Your task to perform on an android device: change alarm snooze length Image 0: 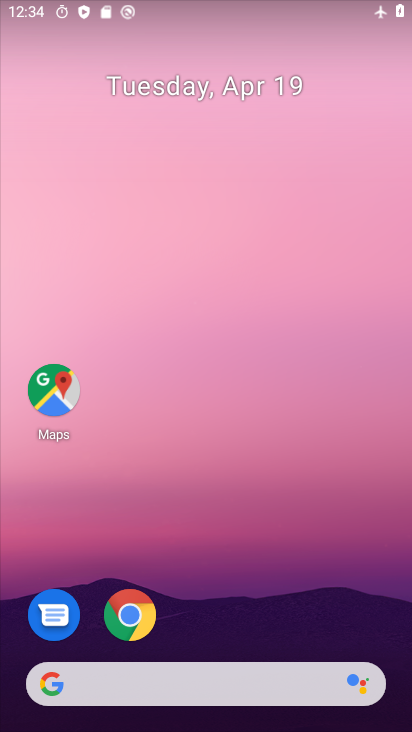
Step 0: drag from (385, 619) to (363, 34)
Your task to perform on an android device: change alarm snooze length Image 1: 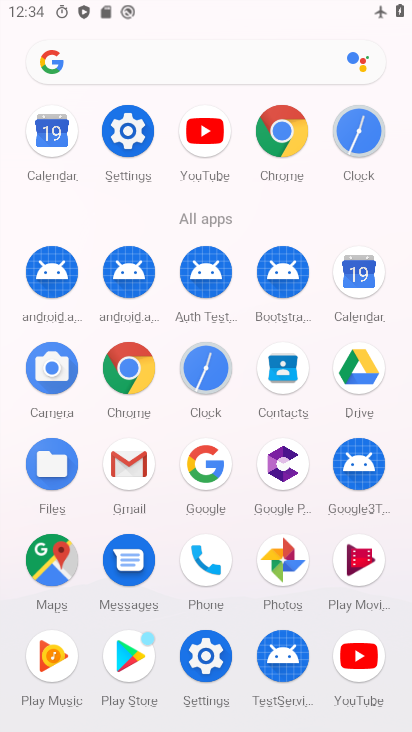
Step 1: click (216, 374)
Your task to perform on an android device: change alarm snooze length Image 2: 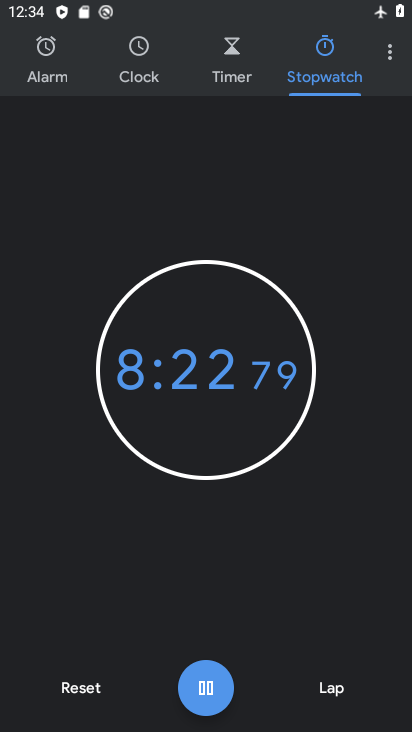
Step 2: click (386, 53)
Your task to perform on an android device: change alarm snooze length Image 3: 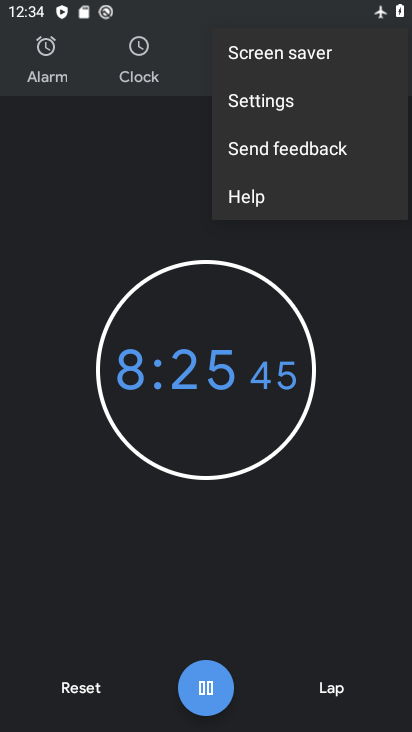
Step 3: click (284, 98)
Your task to perform on an android device: change alarm snooze length Image 4: 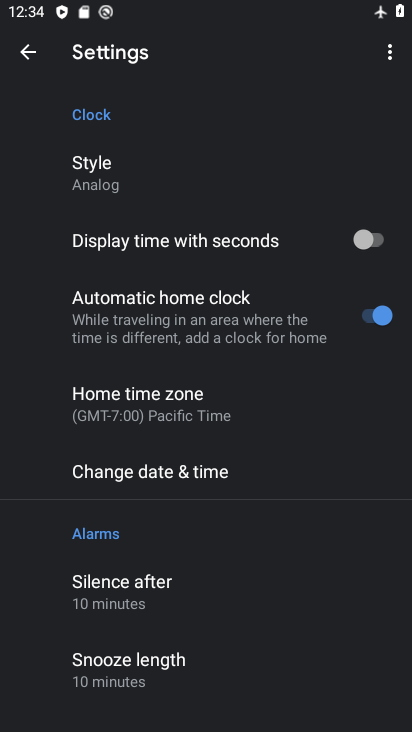
Step 4: drag from (297, 552) to (313, 410)
Your task to perform on an android device: change alarm snooze length Image 5: 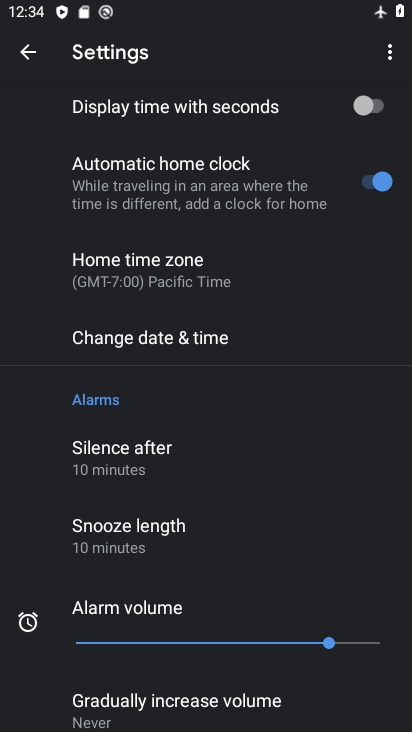
Step 5: drag from (312, 531) to (317, 382)
Your task to perform on an android device: change alarm snooze length Image 6: 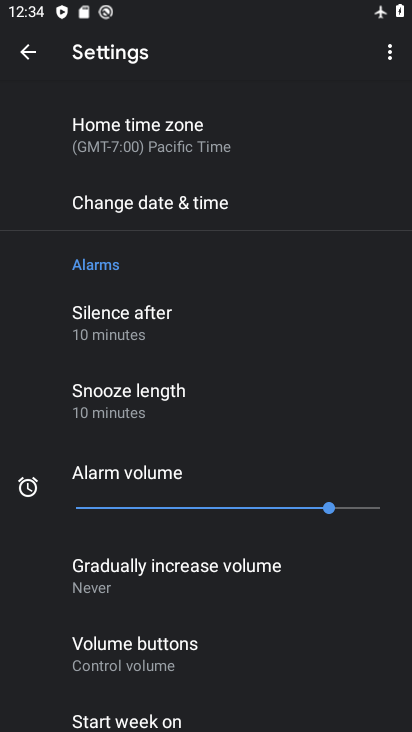
Step 6: drag from (345, 608) to (356, 427)
Your task to perform on an android device: change alarm snooze length Image 7: 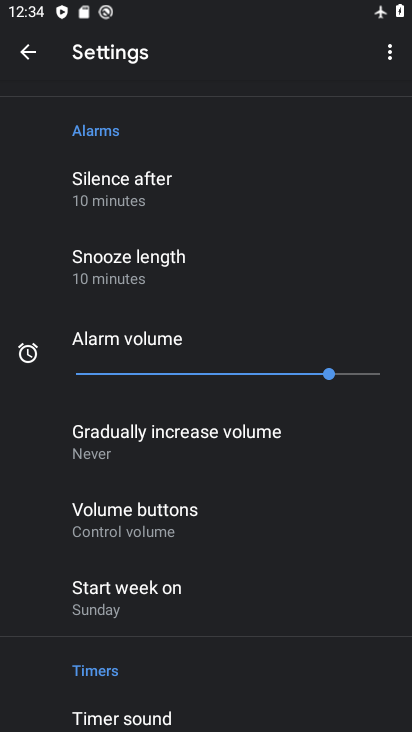
Step 7: drag from (369, 616) to (383, 454)
Your task to perform on an android device: change alarm snooze length Image 8: 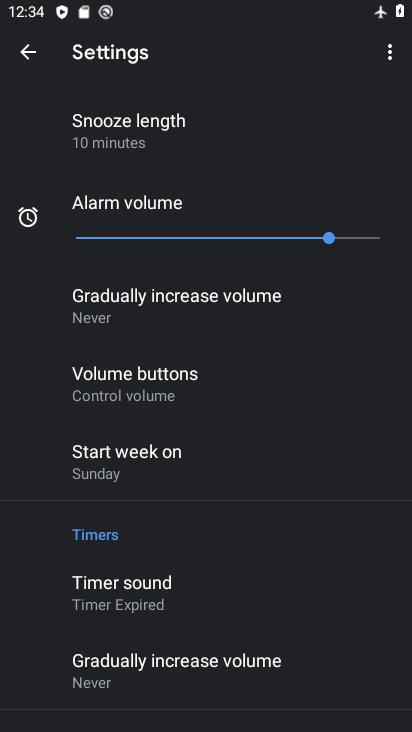
Step 8: drag from (364, 611) to (364, 359)
Your task to perform on an android device: change alarm snooze length Image 9: 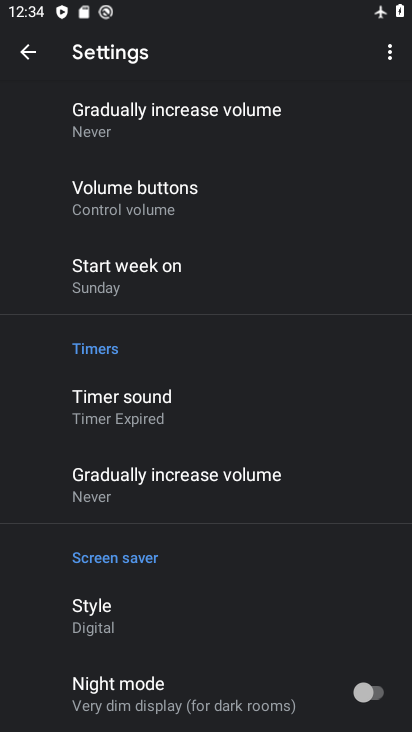
Step 9: drag from (380, 274) to (367, 387)
Your task to perform on an android device: change alarm snooze length Image 10: 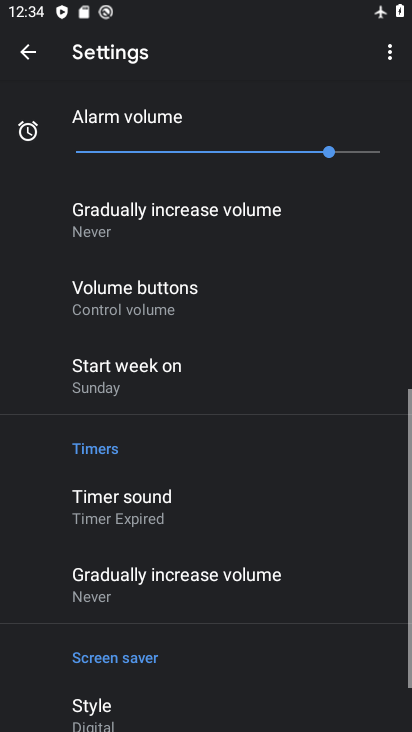
Step 10: drag from (376, 268) to (328, 535)
Your task to perform on an android device: change alarm snooze length Image 11: 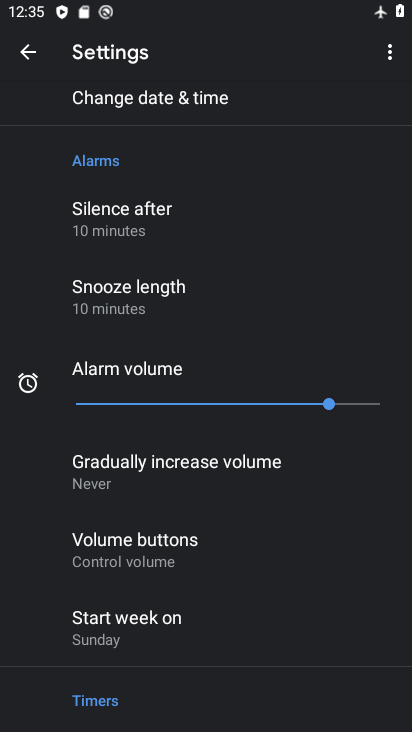
Step 11: click (121, 300)
Your task to perform on an android device: change alarm snooze length Image 12: 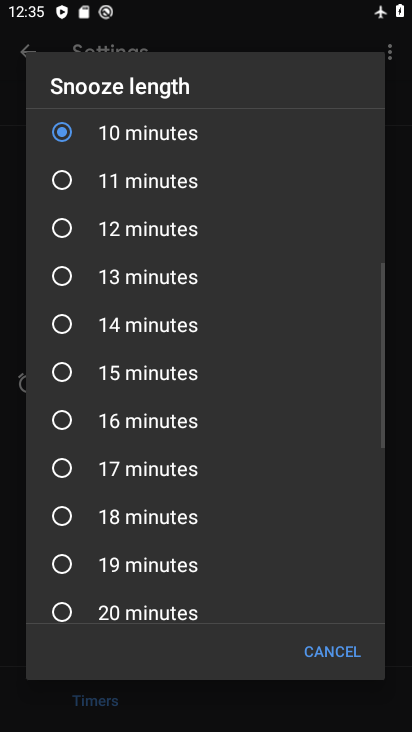
Step 12: click (121, 275)
Your task to perform on an android device: change alarm snooze length Image 13: 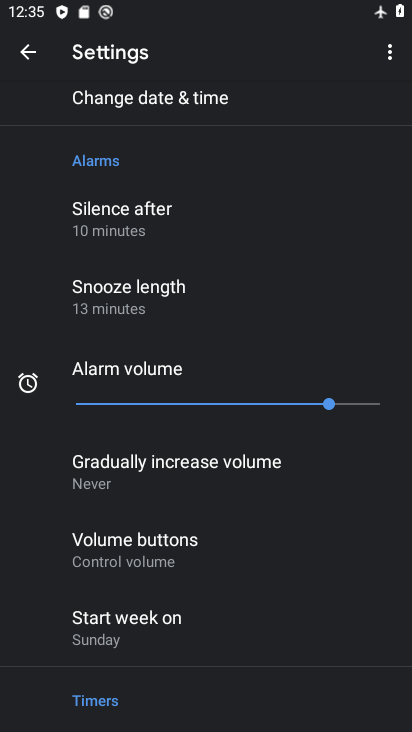
Step 13: task complete